Your task to perform on an android device: turn smart compose on in the gmail app Image 0: 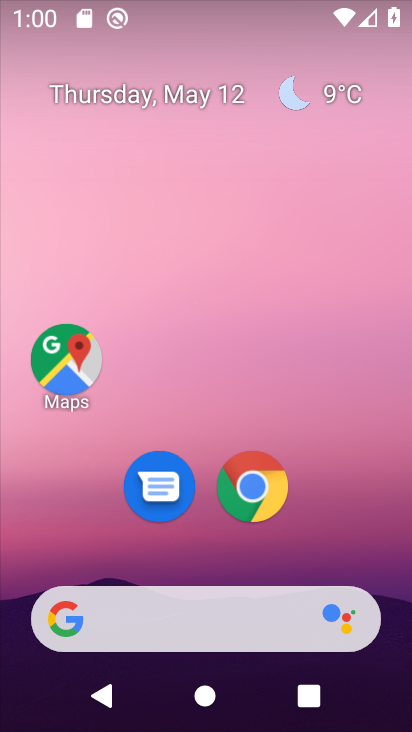
Step 0: drag from (233, 585) to (203, 176)
Your task to perform on an android device: turn smart compose on in the gmail app Image 1: 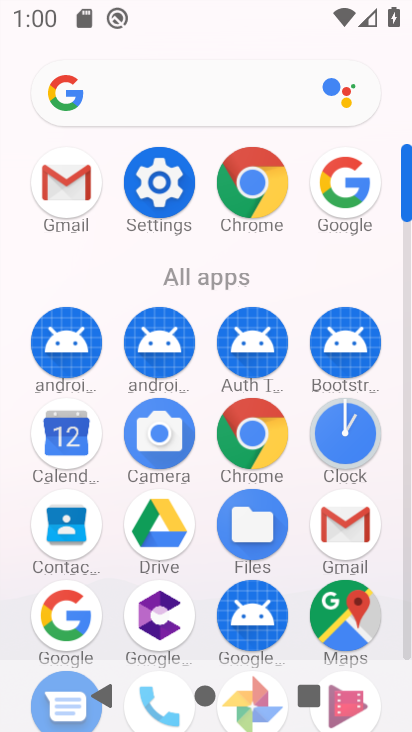
Step 1: click (151, 196)
Your task to perform on an android device: turn smart compose on in the gmail app Image 2: 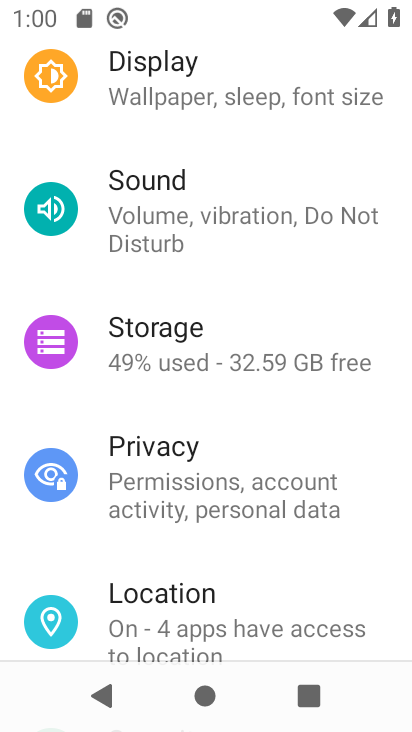
Step 2: drag from (228, 610) to (282, 164)
Your task to perform on an android device: turn smart compose on in the gmail app Image 3: 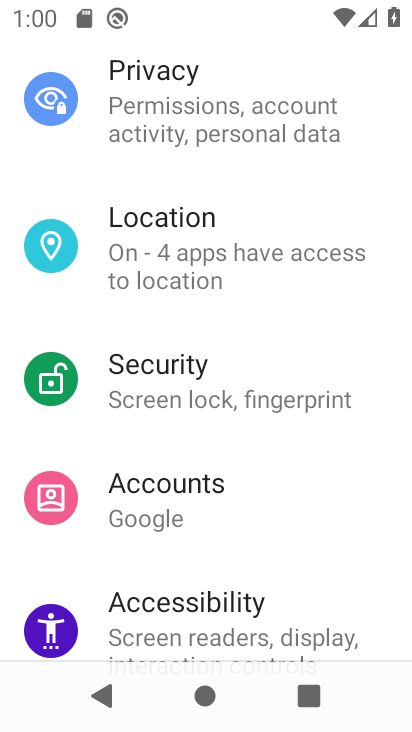
Step 3: drag from (206, 549) to (246, 248)
Your task to perform on an android device: turn smart compose on in the gmail app Image 4: 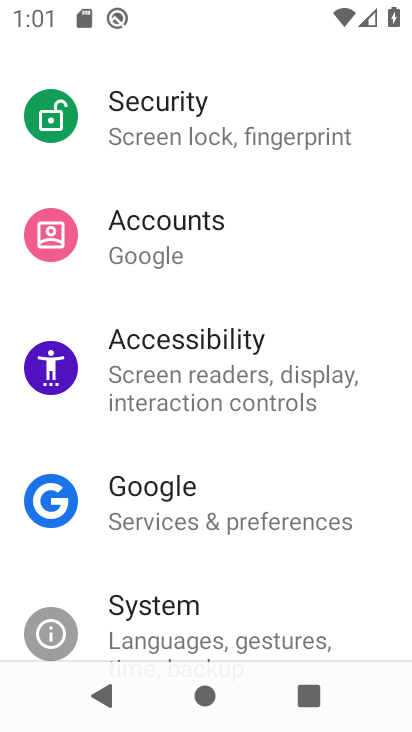
Step 4: press home button
Your task to perform on an android device: turn smart compose on in the gmail app Image 5: 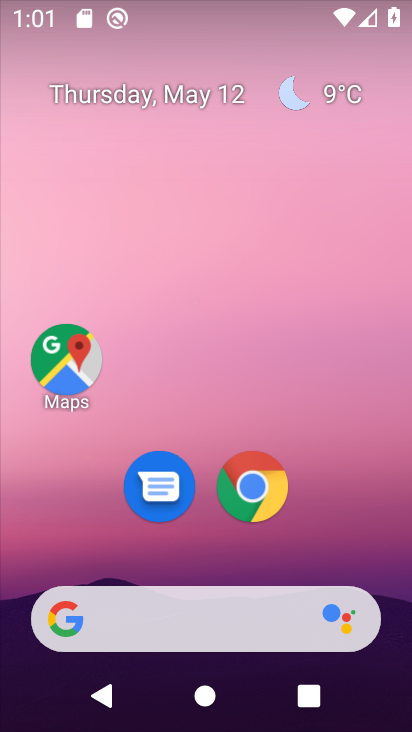
Step 5: drag from (234, 556) to (247, 226)
Your task to perform on an android device: turn smart compose on in the gmail app Image 6: 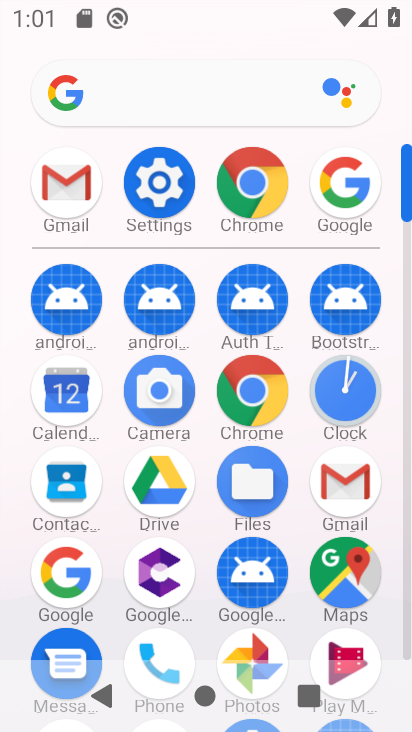
Step 6: click (355, 502)
Your task to perform on an android device: turn smart compose on in the gmail app Image 7: 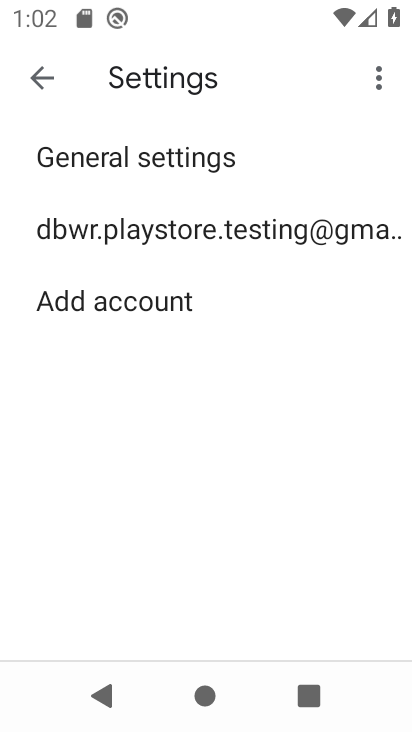
Step 7: click (105, 230)
Your task to perform on an android device: turn smart compose on in the gmail app Image 8: 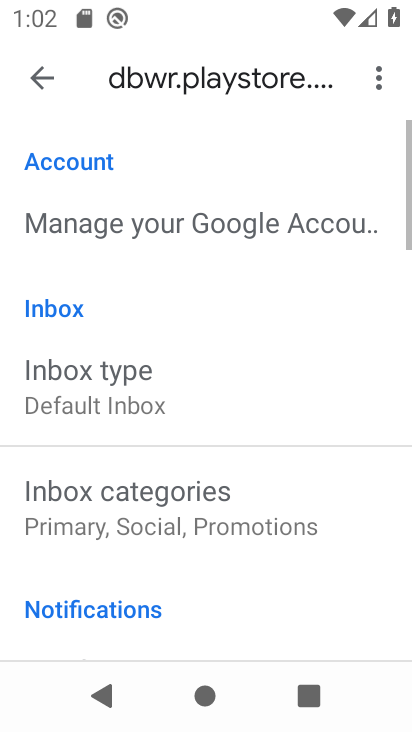
Step 8: task complete